Your task to perform on an android device: Show me recent news Image 0: 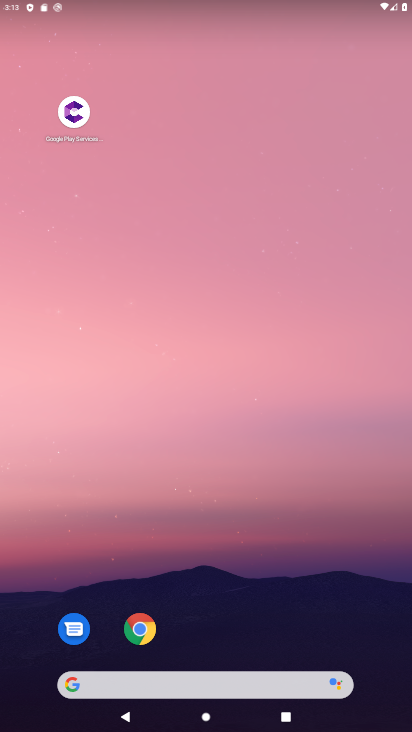
Step 0: drag from (46, 401) to (400, 377)
Your task to perform on an android device: Show me recent news Image 1: 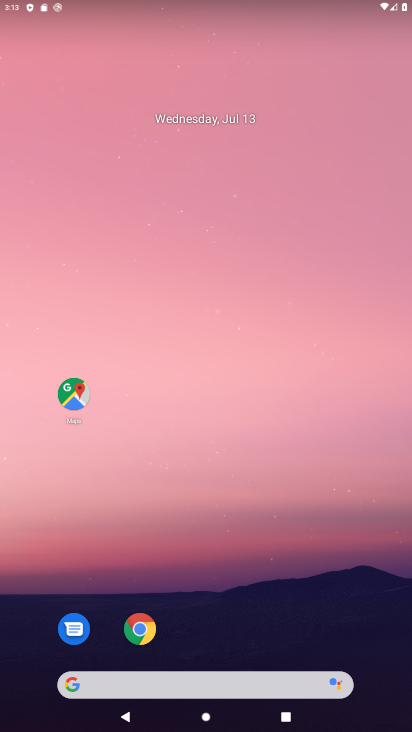
Step 1: task complete